Your task to perform on an android device: turn on bluetooth scan Image 0: 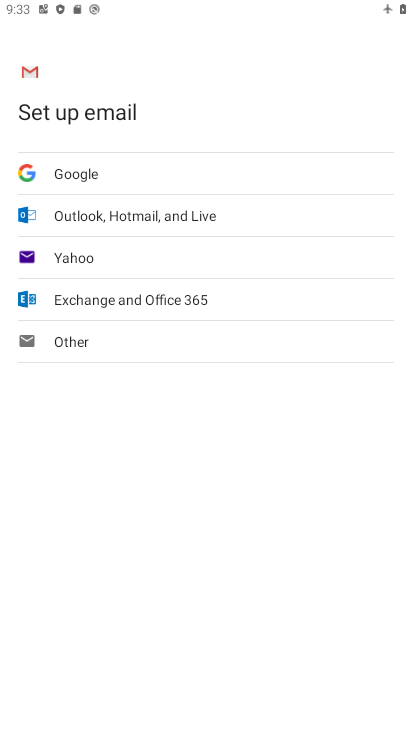
Step 0: press home button
Your task to perform on an android device: turn on bluetooth scan Image 1: 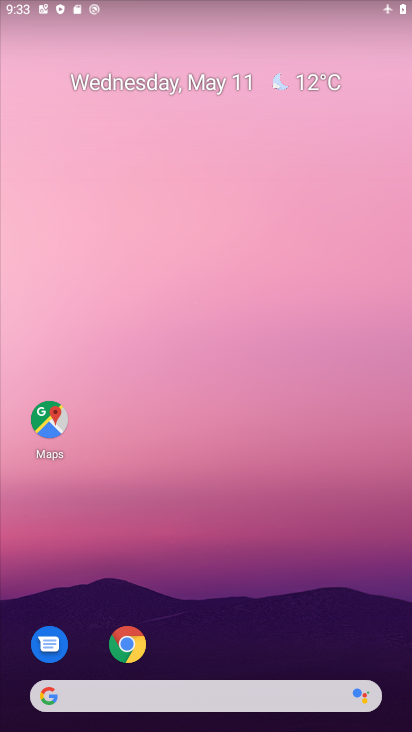
Step 1: drag from (167, 642) to (113, 310)
Your task to perform on an android device: turn on bluetooth scan Image 2: 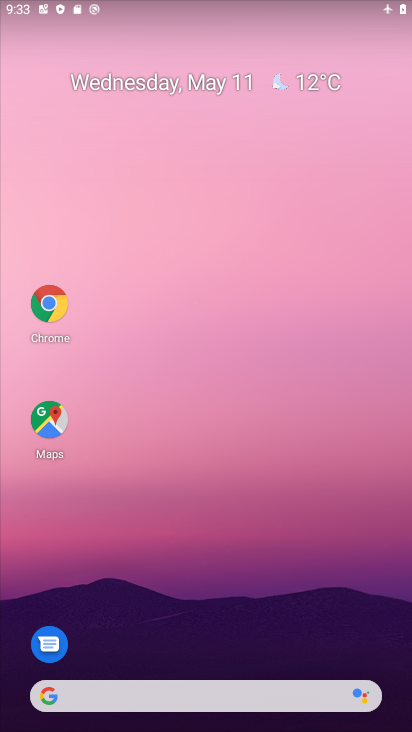
Step 2: drag from (217, 606) to (178, 196)
Your task to perform on an android device: turn on bluetooth scan Image 3: 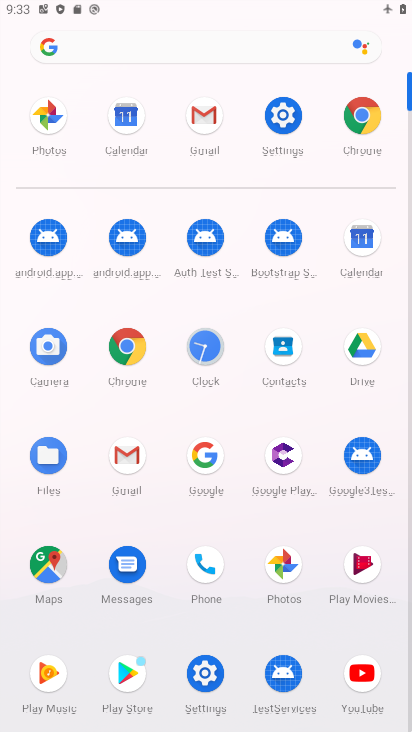
Step 3: click (286, 115)
Your task to perform on an android device: turn on bluetooth scan Image 4: 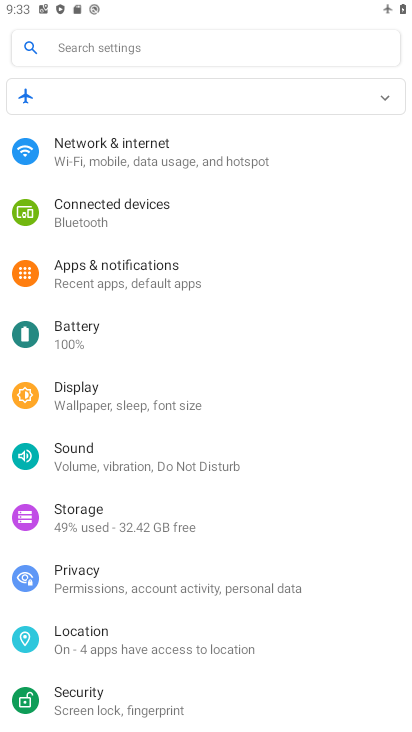
Step 4: click (90, 649)
Your task to perform on an android device: turn on bluetooth scan Image 5: 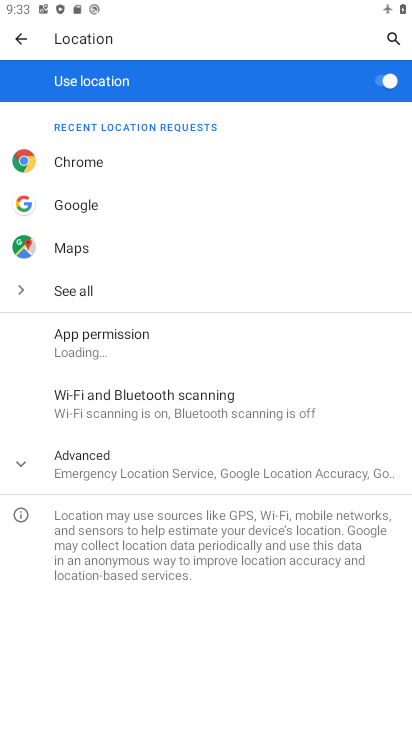
Step 5: click (161, 400)
Your task to perform on an android device: turn on bluetooth scan Image 6: 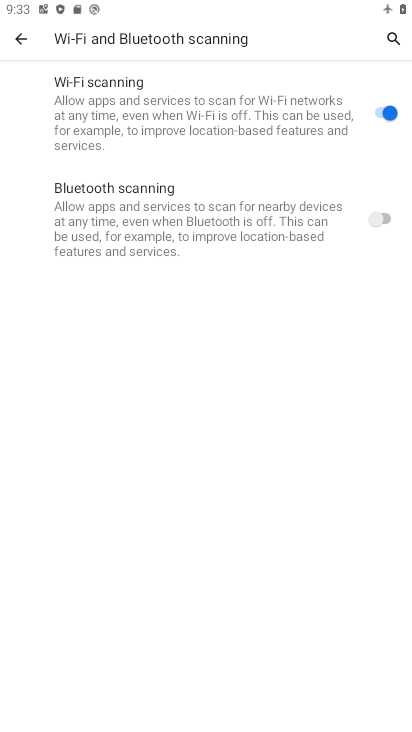
Step 6: click (386, 218)
Your task to perform on an android device: turn on bluetooth scan Image 7: 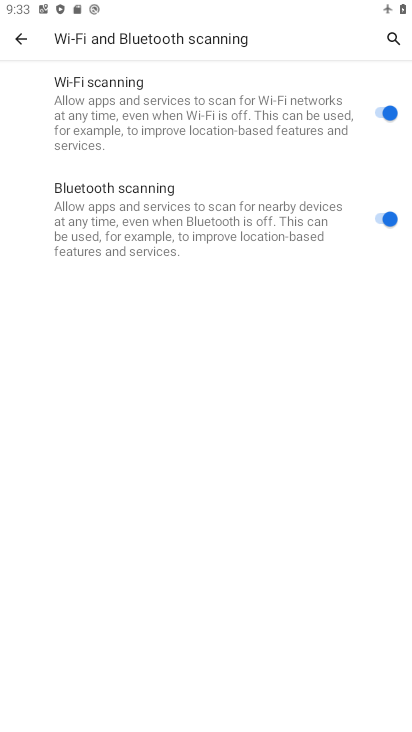
Step 7: task complete